Your task to perform on an android device: choose inbox layout in the gmail app Image 0: 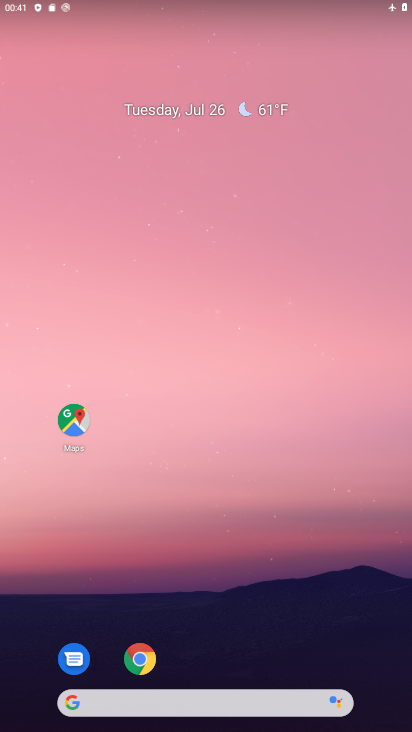
Step 0: drag from (224, 527) to (220, 19)
Your task to perform on an android device: choose inbox layout in the gmail app Image 1: 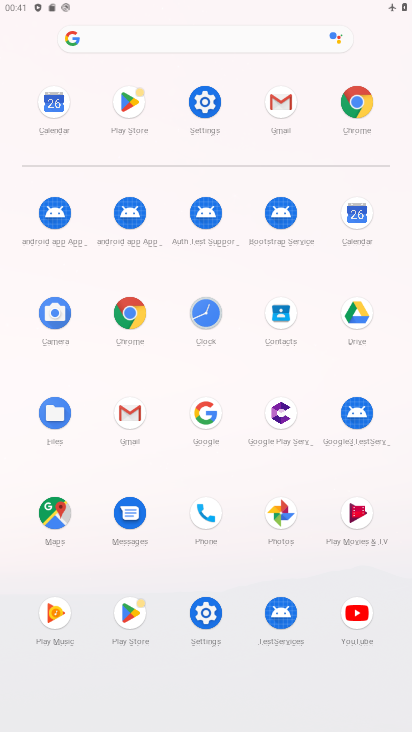
Step 1: click (285, 103)
Your task to perform on an android device: choose inbox layout in the gmail app Image 2: 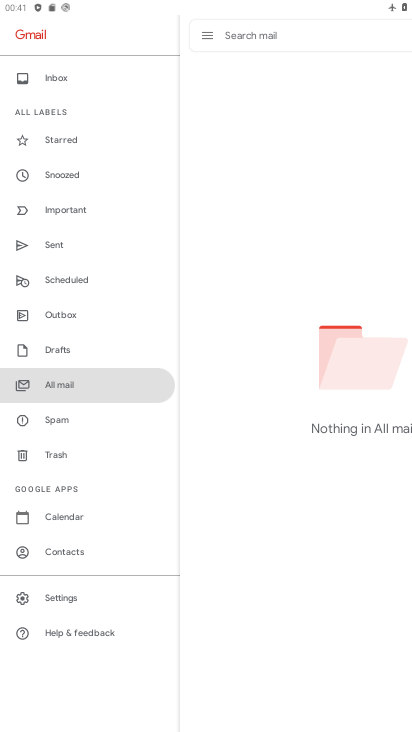
Step 2: click (86, 602)
Your task to perform on an android device: choose inbox layout in the gmail app Image 3: 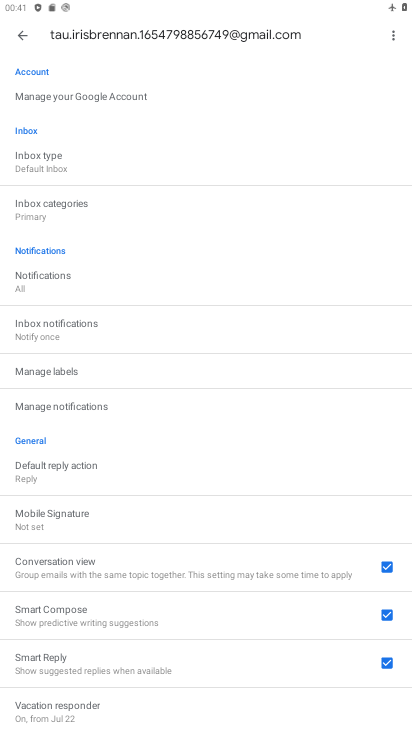
Step 3: click (59, 160)
Your task to perform on an android device: choose inbox layout in the gmail app Image 4: 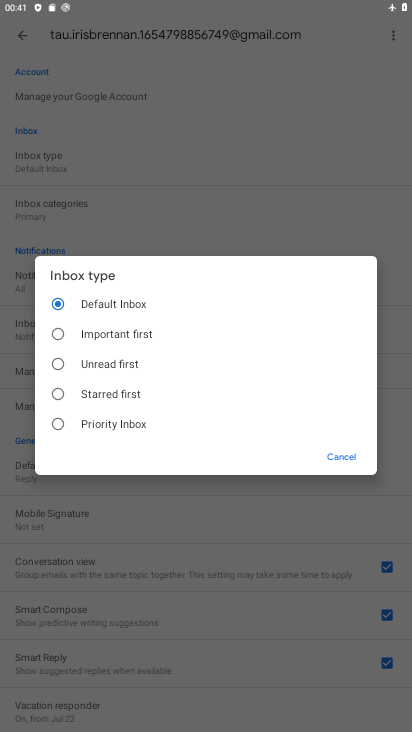
Step 4: task complete